Your task to perform on an android device: Open the map Image 0: 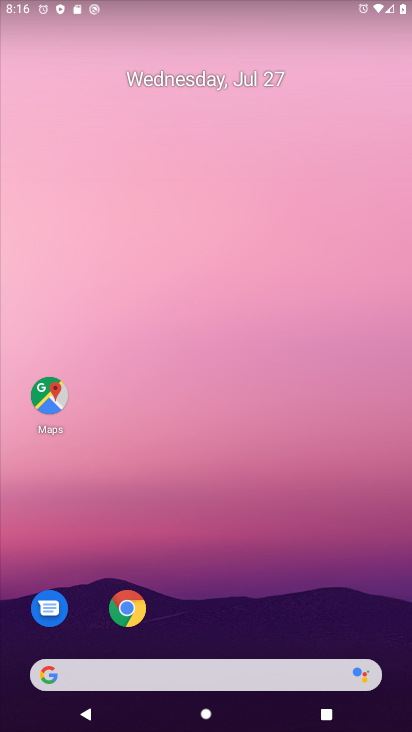
Step 0: click (47, 395)
Your task to perform on an android device: Open the map Image 1: 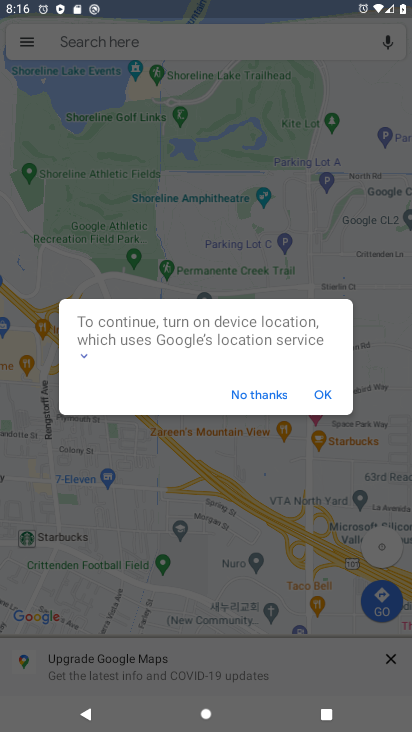
Step 1: task complete